Your task to perform on an android device: Open network settings Image 0: 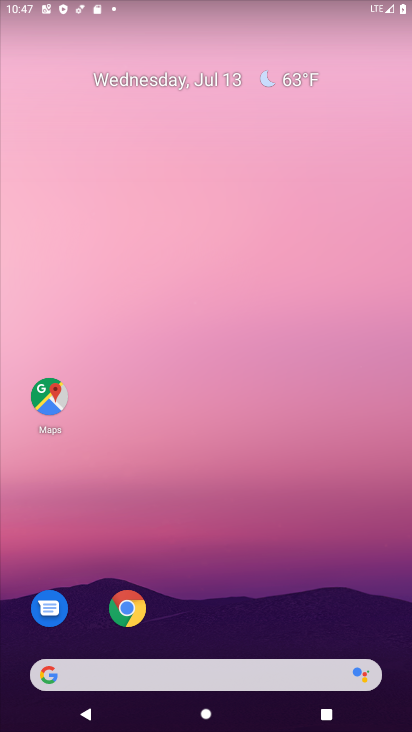
Step 0: drag from (261, 594) to (383, 0)
Your task to perform on an android device: Open network settings Image 1: 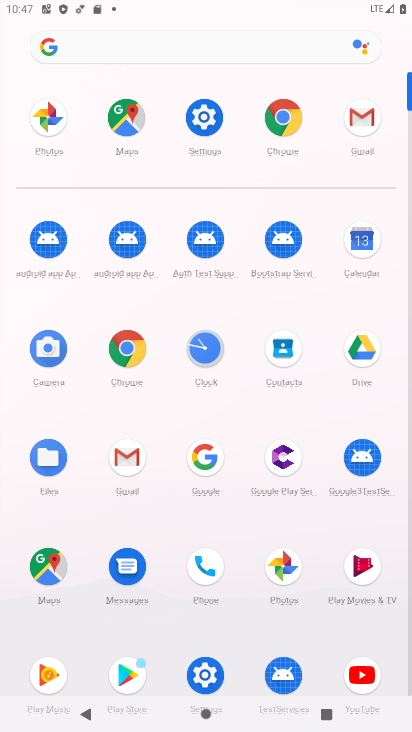
Step 1: click (193, 664)
Your task to perform on an android device: Open network settings Image 2: 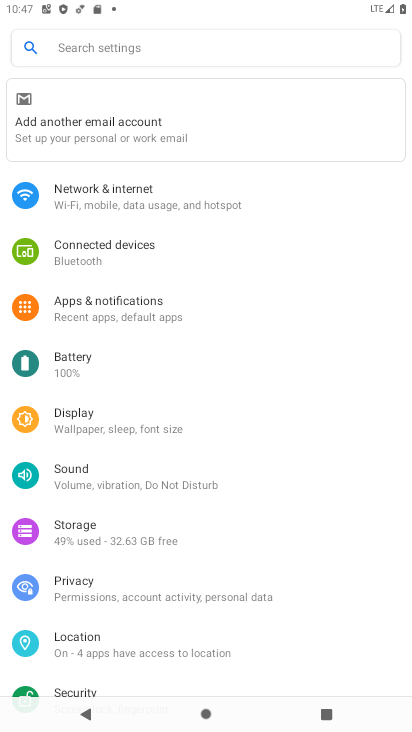
Step 2: click (135, 203)
Your task to perform on an android device: Open network settings Image 3: 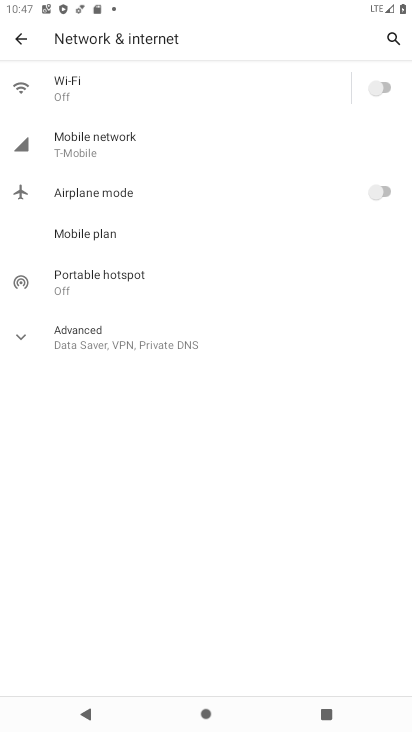
Step 3: task complete